Your task to perform on an android device: What is the recent news? Image 0: 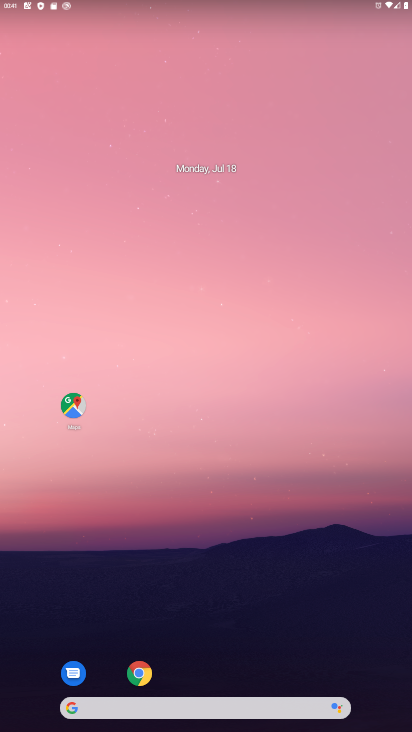
Step 0: drag from (248, 659) to (247, 122)
Your task to perform on an android device: What is the recent news? Image 1: 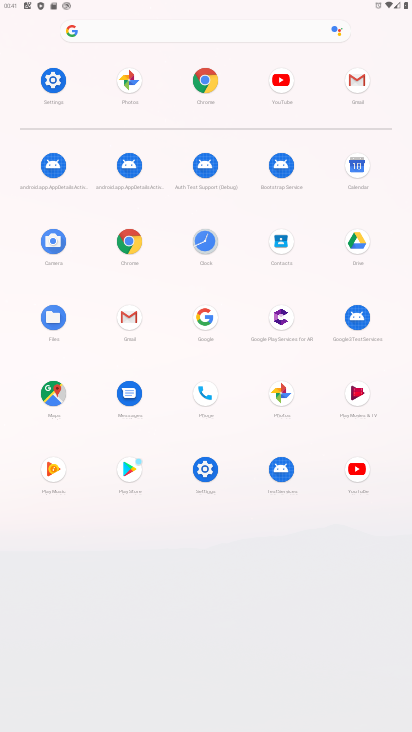
Step 1: click (173, 37)
Your task to perform on an android device: What is the recent news? Image 2: 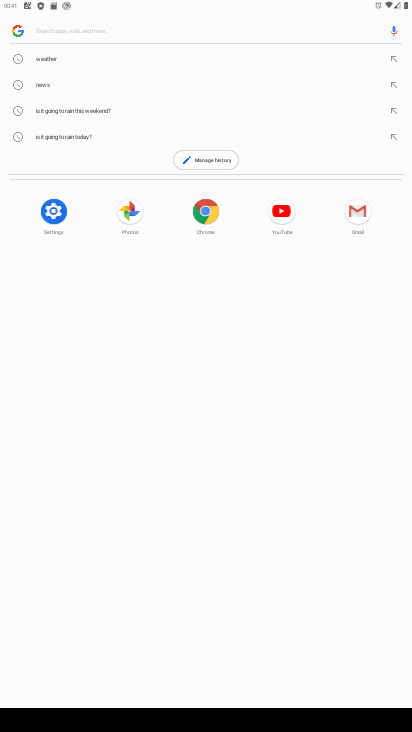
Step 2: click (133, 82)
Your task to perform on an android device: What is the recent news? Image 3: 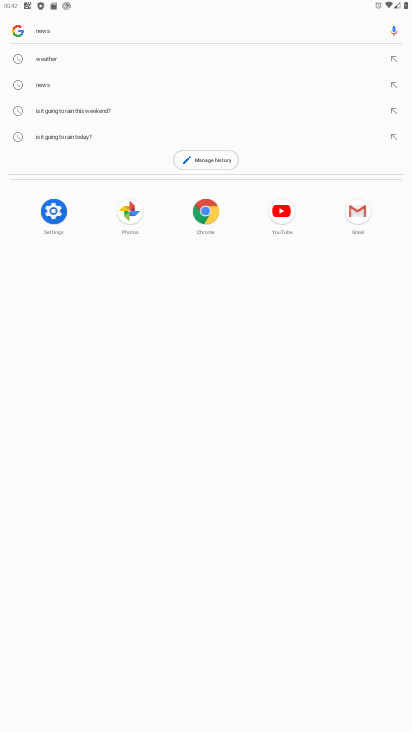
Step 3: task complete